Your task to perform on an android device: Add "apple airpods" to the cart on newegg.com Image 0: 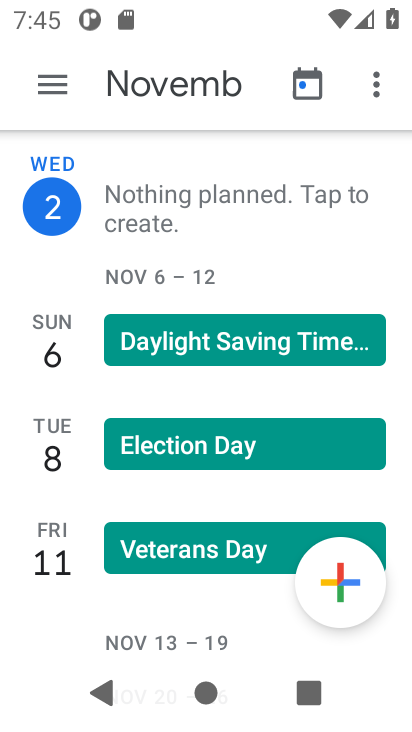
Step 0: press home button
Your task to perform on an android device: Add "apple airpods" to the cart on newegg.com Image 1: 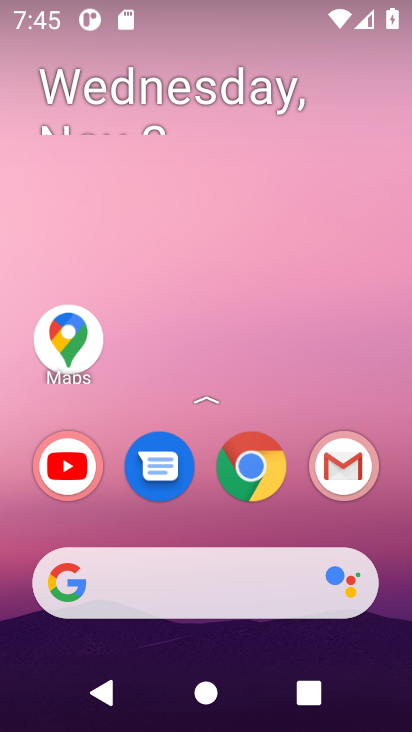
Step 1: click (233, 591)
Your task to perform on an android device: Add "apple airpods" to the cart on newegg.com Image 2: 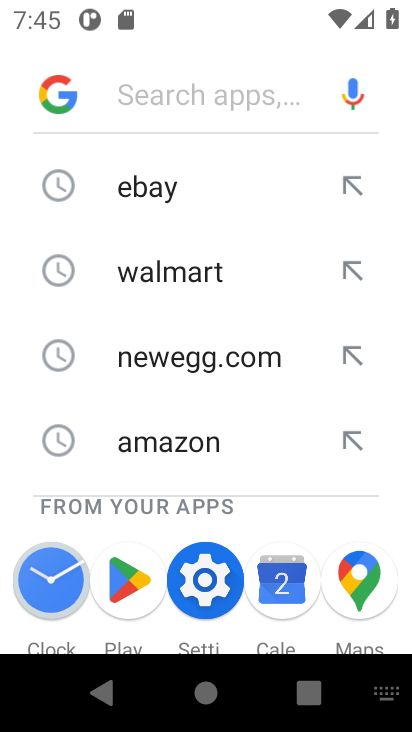
Step 2: type "newegg.com"
Your task to perform on an android device: Add "apple airpods" to the cart on newegg.com Image 3: 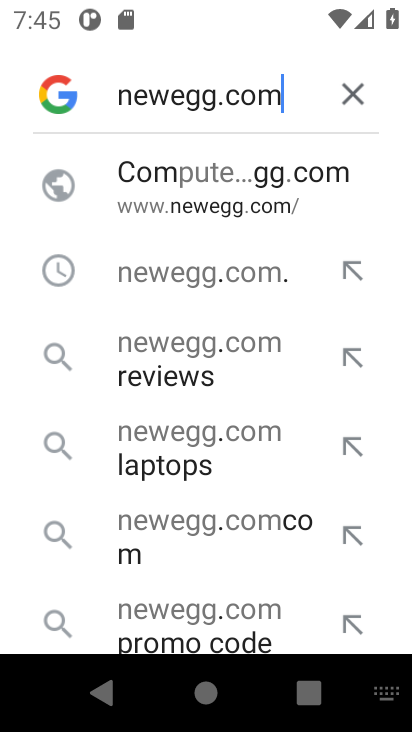
Step 3: type ""
Your task to perform on an android device: Add "apple airpods" to the cart on newegg.com Image 4: 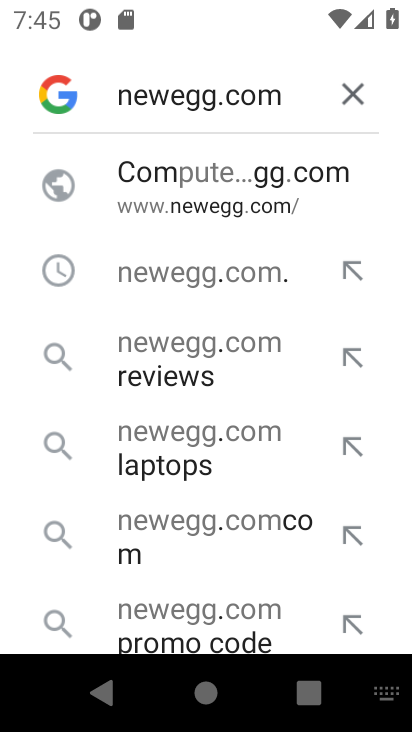
Step 4: click (205, 212)
Your task to perform on an android device: Add "apple airpods" to the cart on newegg.com Image 5: 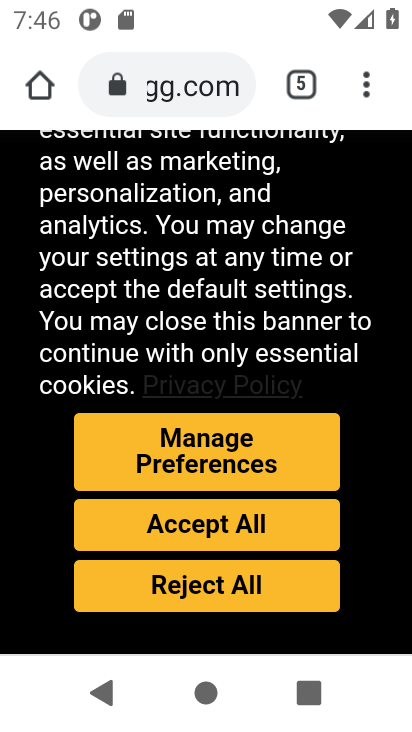
Step 5: click (253, 530)
Your task to perform on an android device: Add "apple airpods" to the cart on newegg.com Image 6: 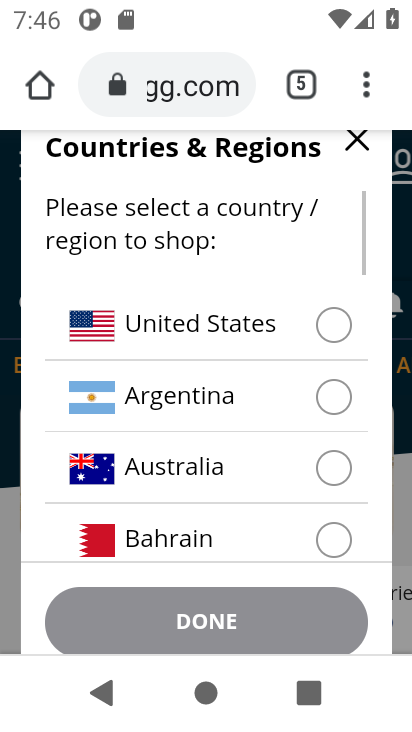
Step 6: click (328, 318)
Your task to perform on an android device: Add "apple airpods" to the cart on newegg.com Image 7: 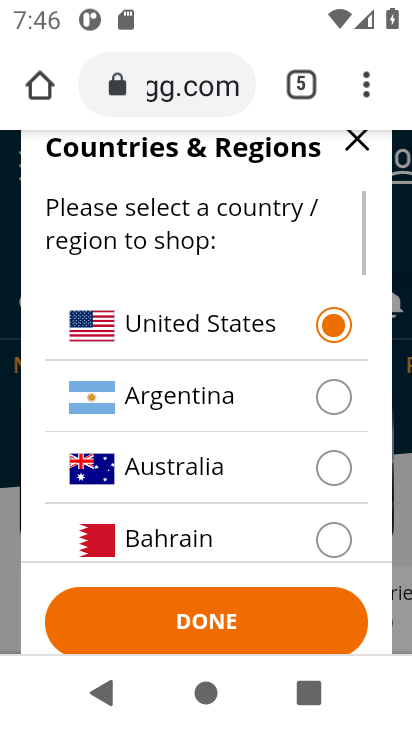
Step 7: click (204, 630)
Your task to perform on an android device: Add "apple airpods" to the cart on newegg.com Image 8: 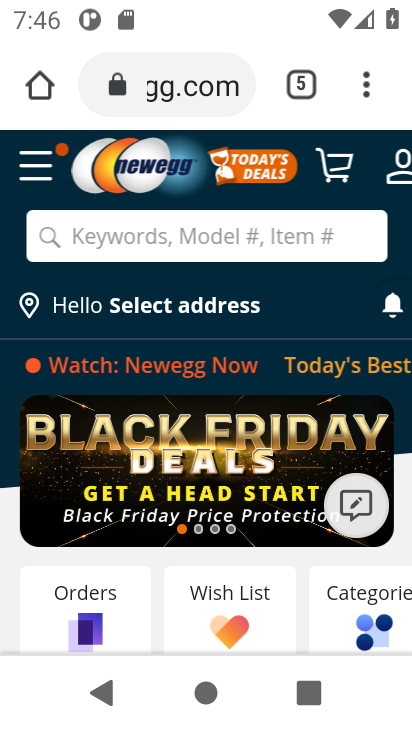
Step 8: click (260, 245)
Your task to perform on an android device: Add "apple airpods" to the cart on newegg.com Image 9: 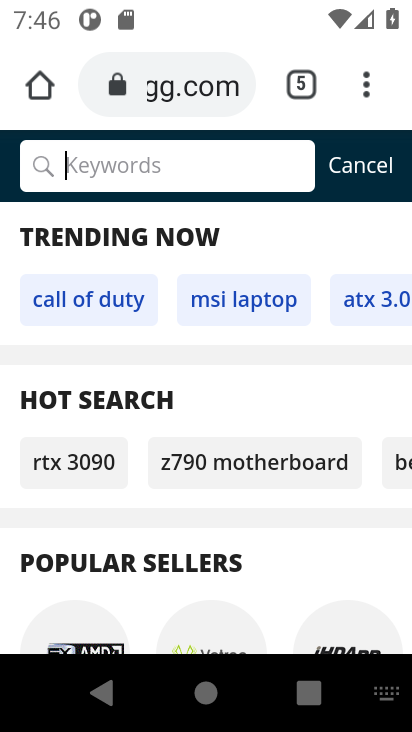
Step 9: type "apple airpods"
Your task to perform on an android device: Add "apple airpods" to the cart on newegg.com Image 10: 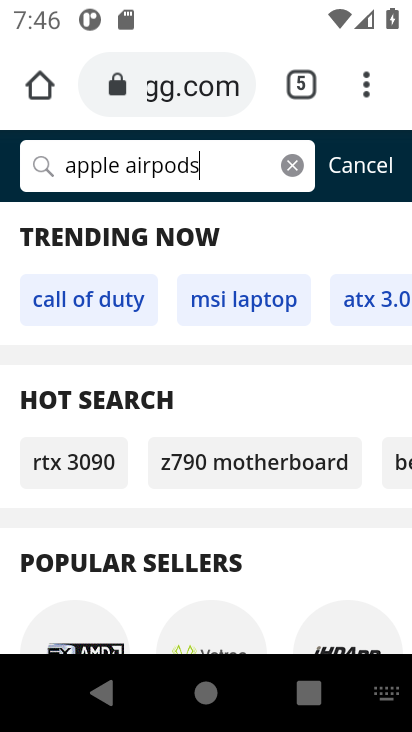
Step 10: type ""
Your task to perform on an android device: Add "apple airpods" to the cart on newegg.com Image 11: 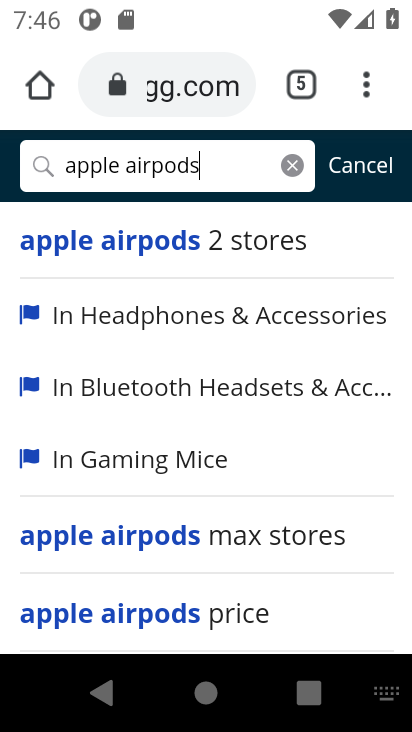
Step 11: click (50, 169)
Your task to perform on an android device: Add "apple airpods" to the cart on newegg.com Image 12: 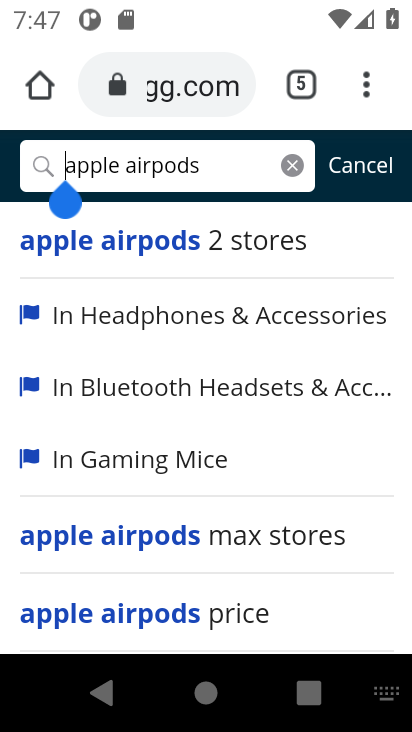
Step 12: click (27, 159)
Your task to perform on an android device: Add "apple airpods" to the cart on newegg.com Image 13: 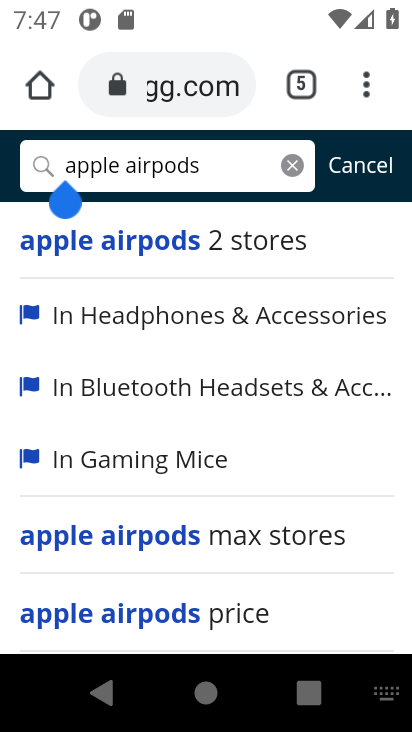
Step 13: click (41, 157)
Your task to perform on an android device: Add "apple airpods" to the cart on newegg.com Image 14: 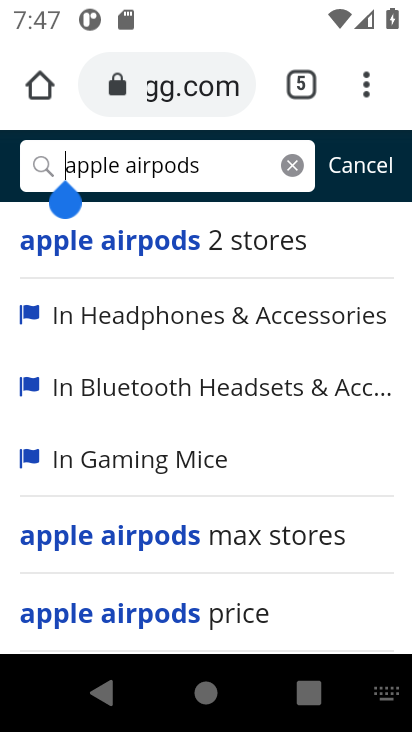
Step 14: drag from (295, 516) to (296, 367)
Your task to perform on an android device: Add "apple airpods" to the cart on newegg.com Image 15: 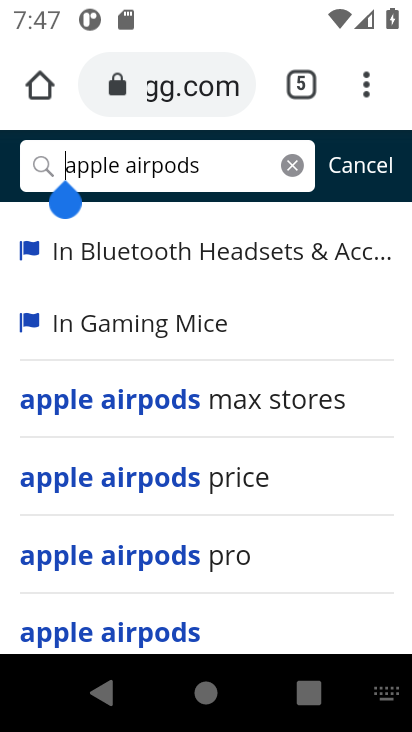
Step 15: click (219, 606)
Your task to perform on an android device: Add "apple airpods" to the cart on newegg.com Image 16: 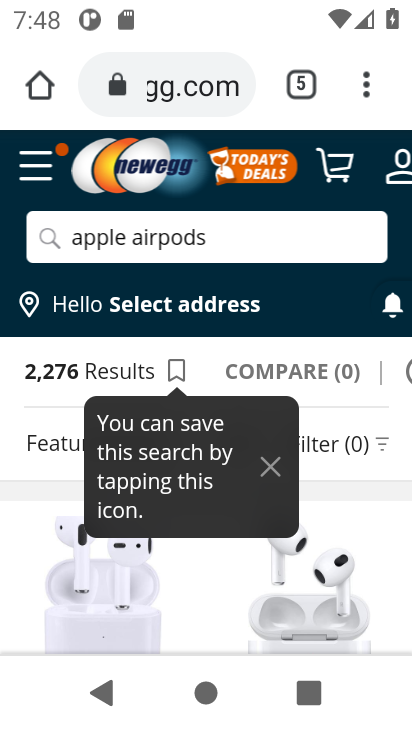
Step 16: drag from (193, 579) to (219, 401)
Your task to perform on an android device: Add "apple airpods" to the cart on newegg.com Image 17: 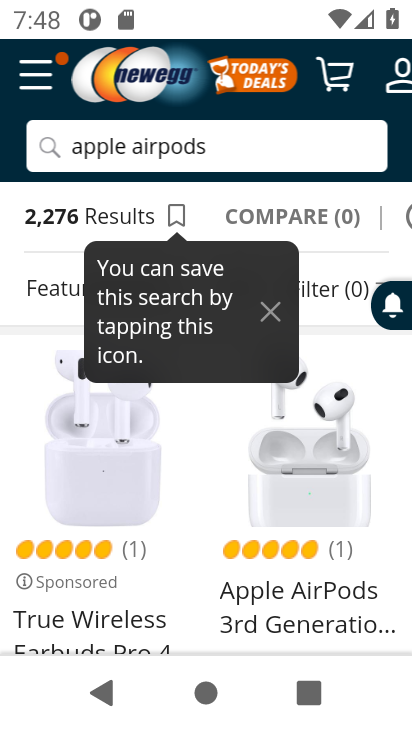
Step 17: drag from (209, 506) to (243, 361)
Your task to perform on an android device: Add "apple airpods" to the cart on newegg.com Image 18: 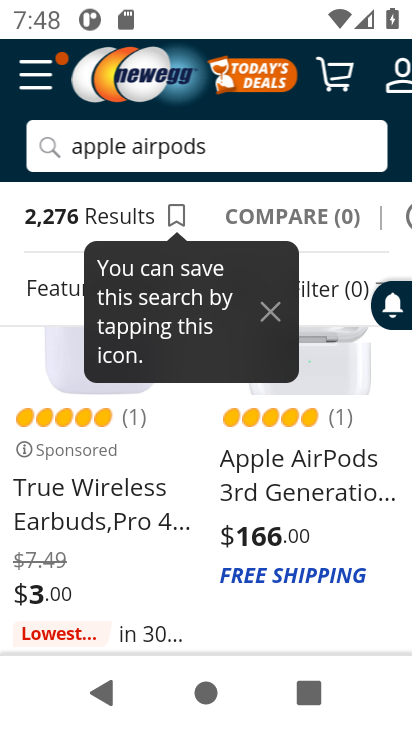
Step 18: click (124, 412)
Your task to perform on an android device: Add "apple airpods" to the cart on newegg.com Image 19: 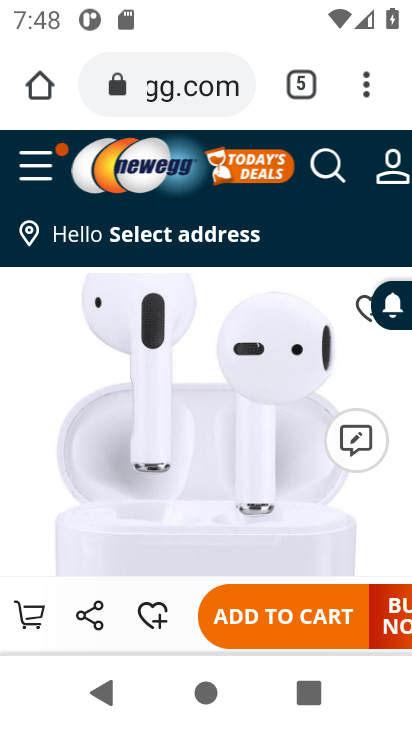
Step 19: drag from (216, 545) to (264, 377)
Your task to perform on an android device: Add "apple airpods" to the cart on newegg.com Image 20: 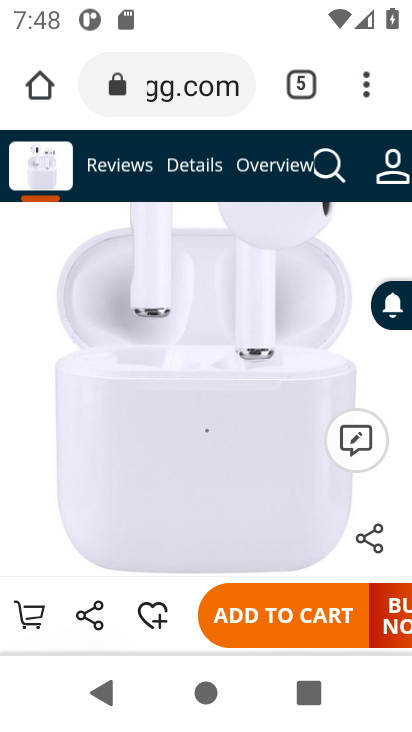
Step 20: click (264, 609)
Your task to perform on an android device: Add "apple airpods" to the cart on newegg.com Image 21: 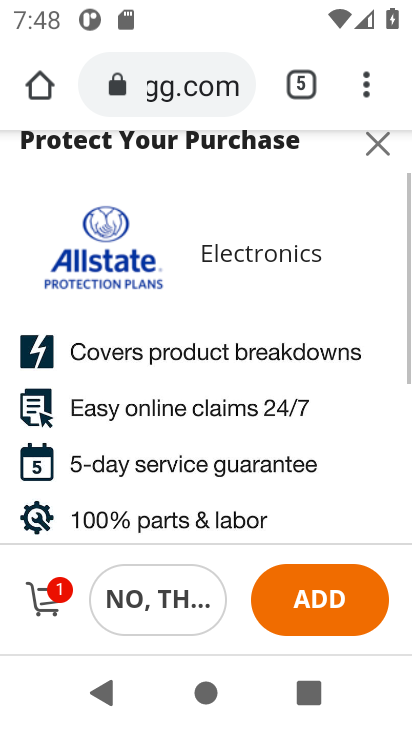
Step 21: task complete